Your task to perform on an android device: turn on notifications settings in the gmail app Image 0: 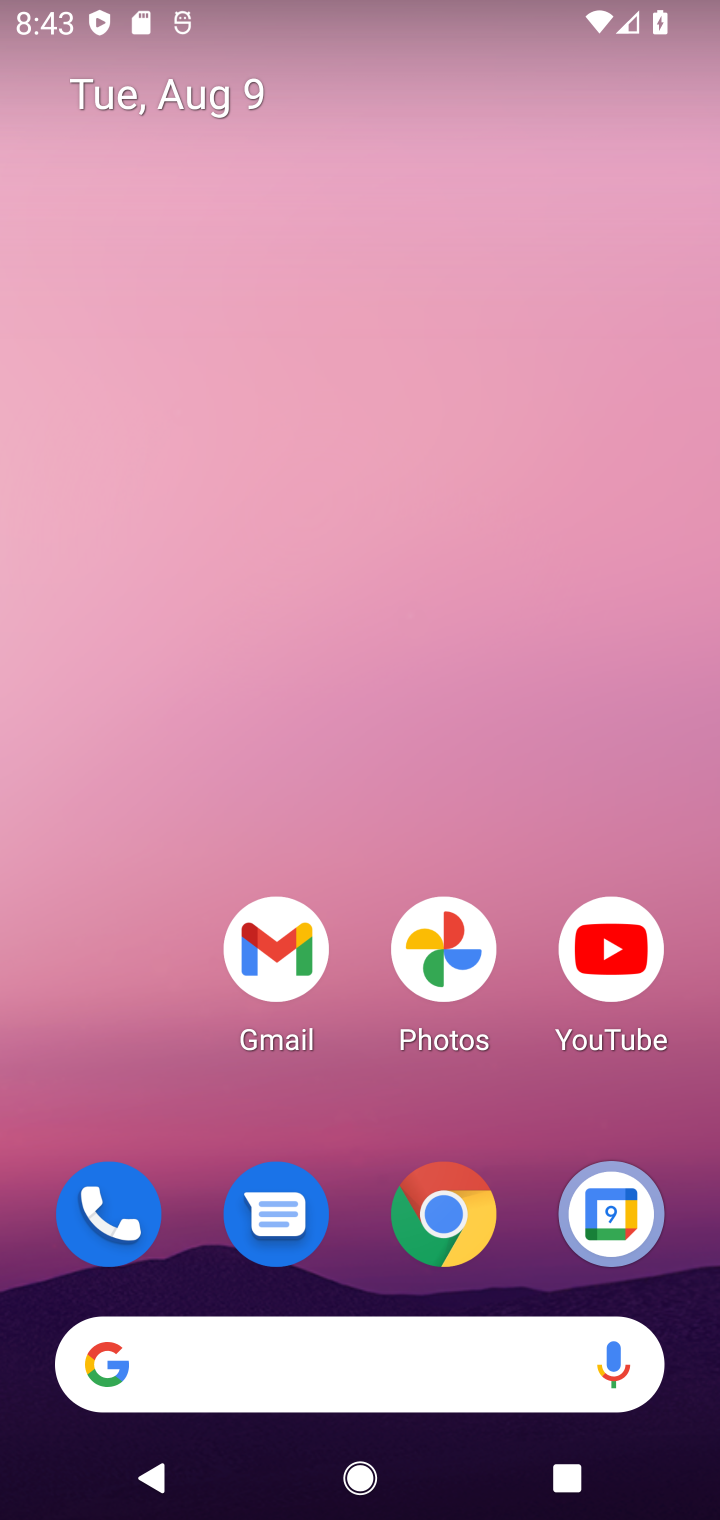
Step 0: click (289, 949)
Your task to perform on an android device: turn on notifications settings in the gmail app Image 1: 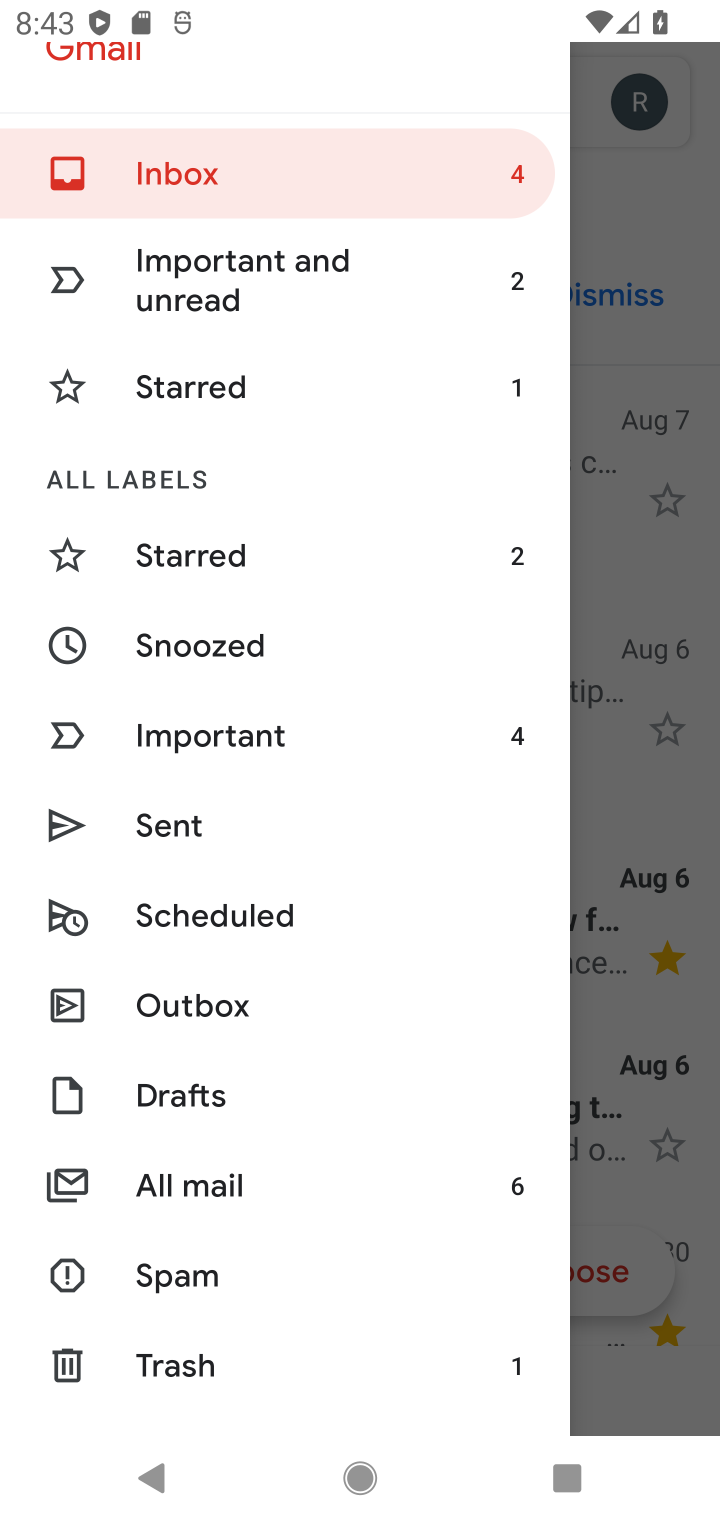
Step 1: drag from (341, 1220) to (223, 581)
Your task to perform on an android device: turn on notifications settings in the gmail app Image 2: 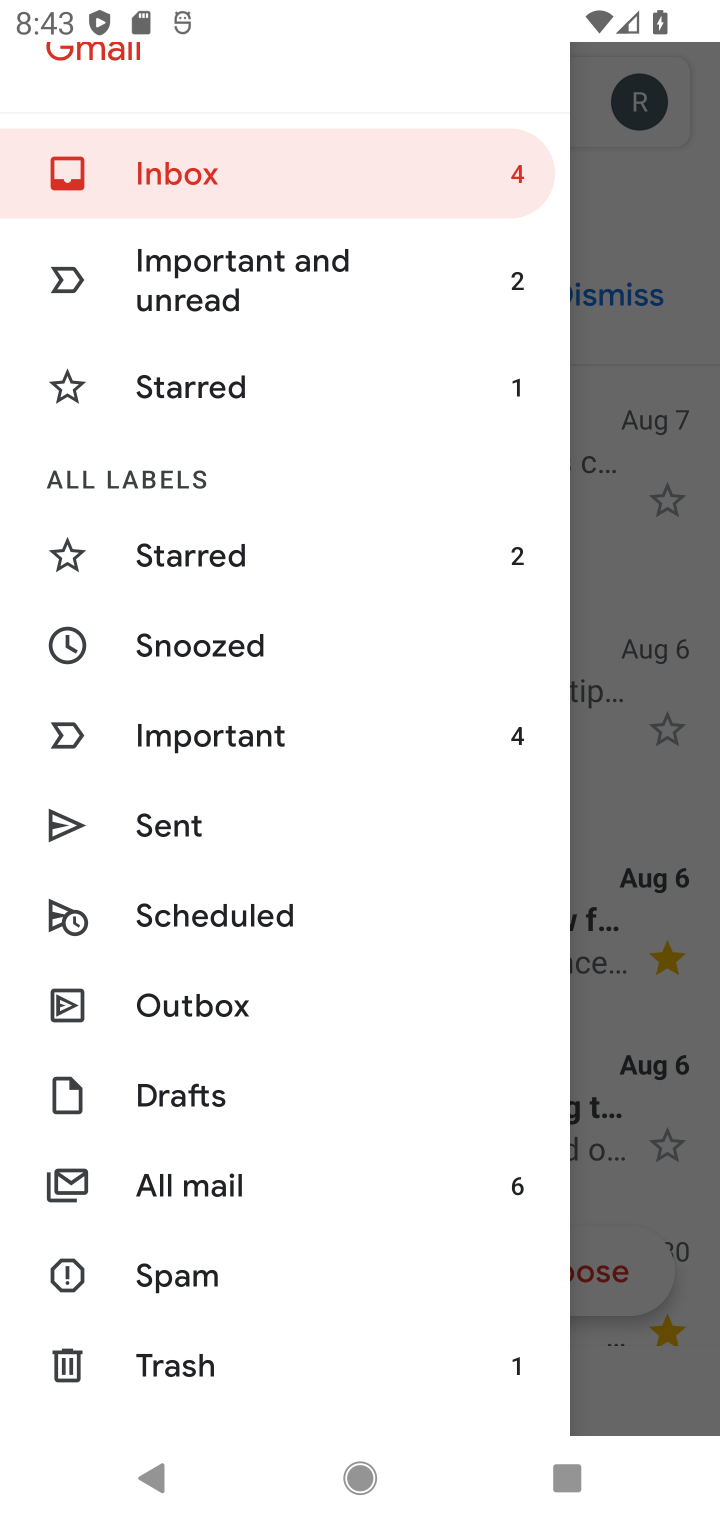
Step 2: drag from (351, 1353) to (467, 321)
Your task to perform on an android device: turn on notifications settings in the gmail app Image 3: 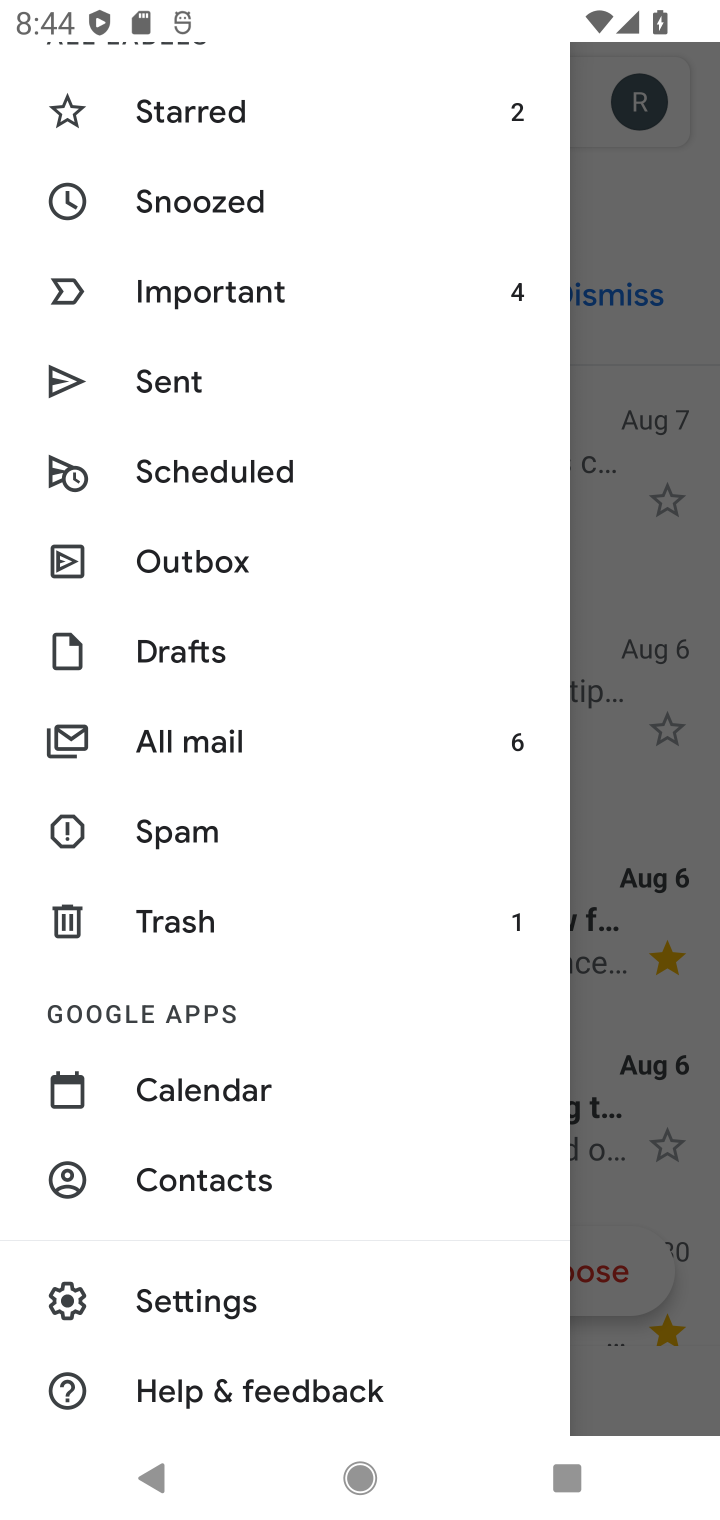
Step 3: click (153, 1290)
Your task to perform on an android device: turn on notifications settings in the gmail app Image 4: 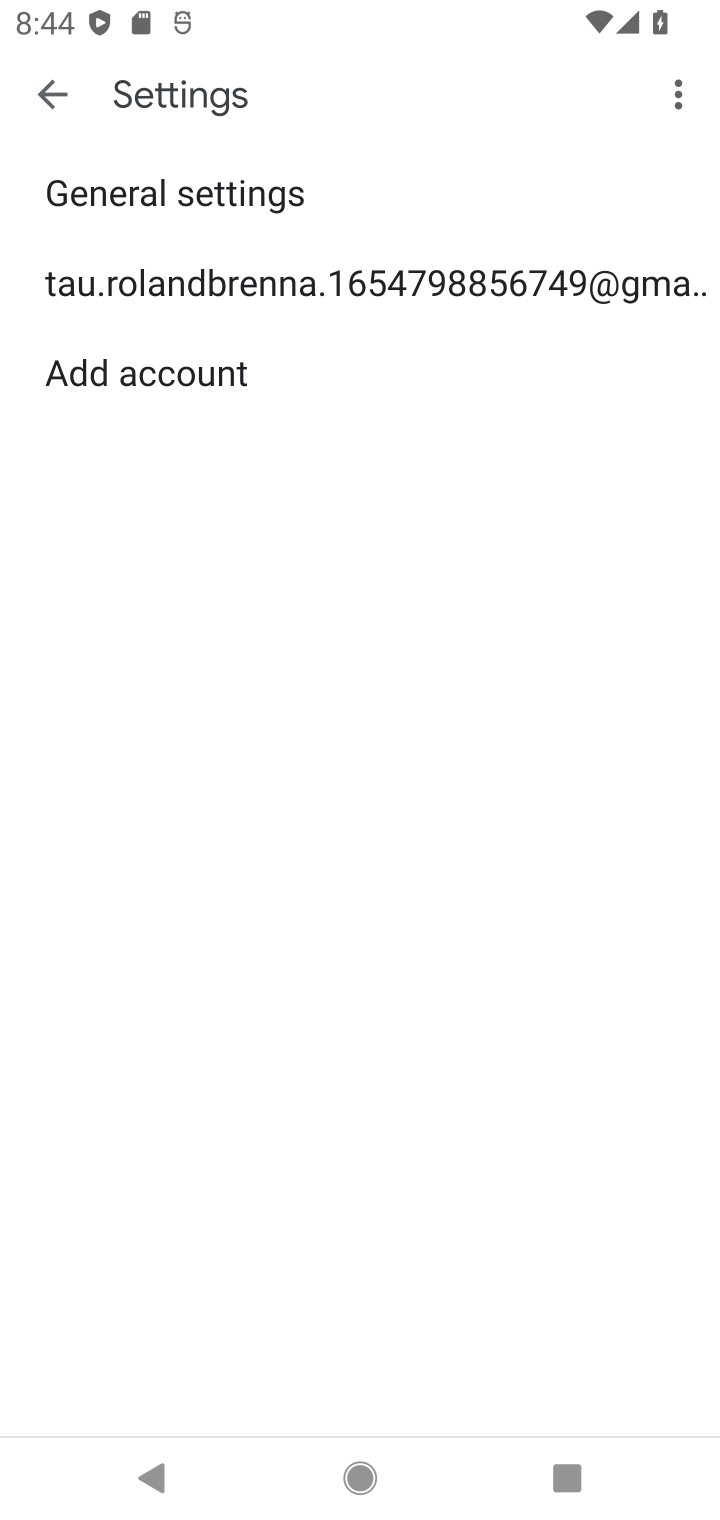
Step 4: click (141, 289)
Your task to perform on an android device: turn on notifications settings in the gmail app Image 5: 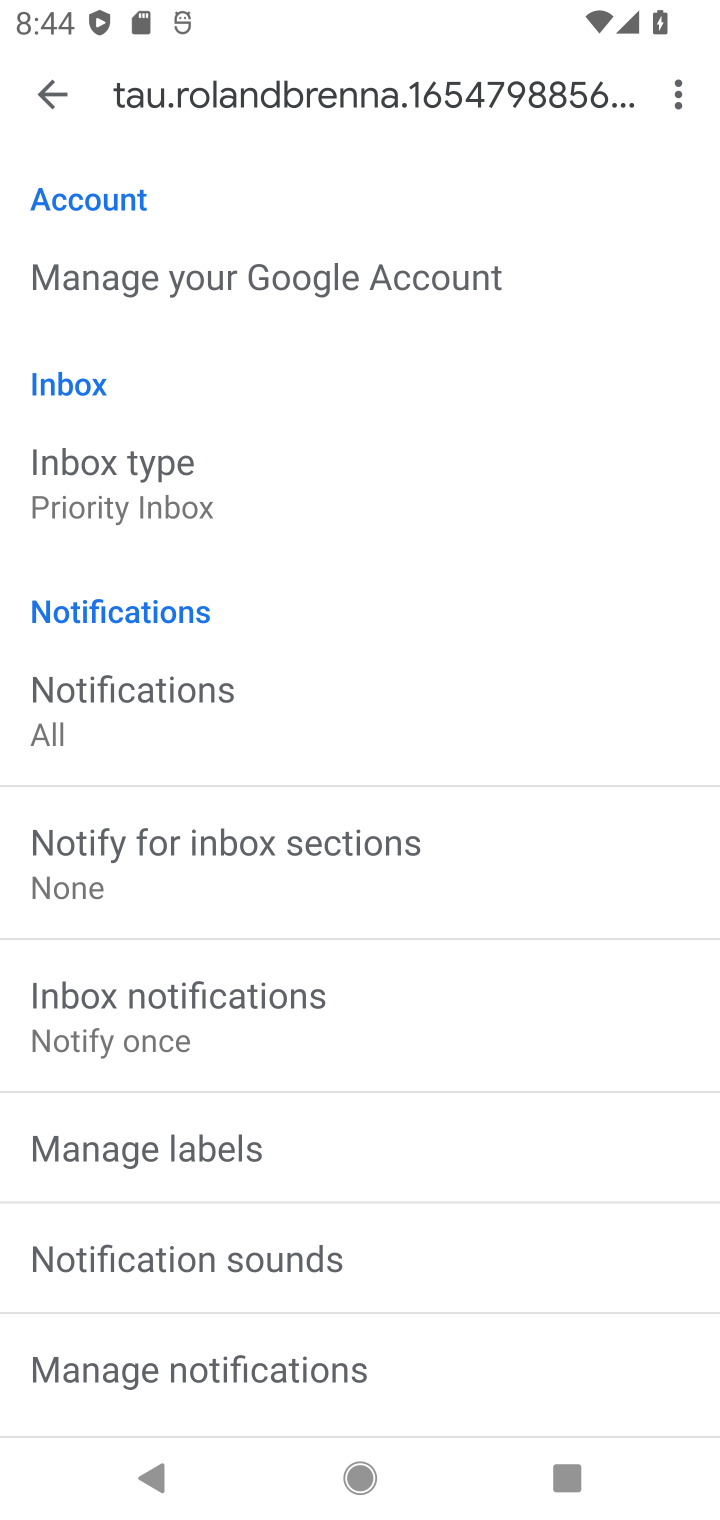
Step 5: click (216, 697)
Your task to perform on an android device: turn on notifications settings in the gmail app Image 6: 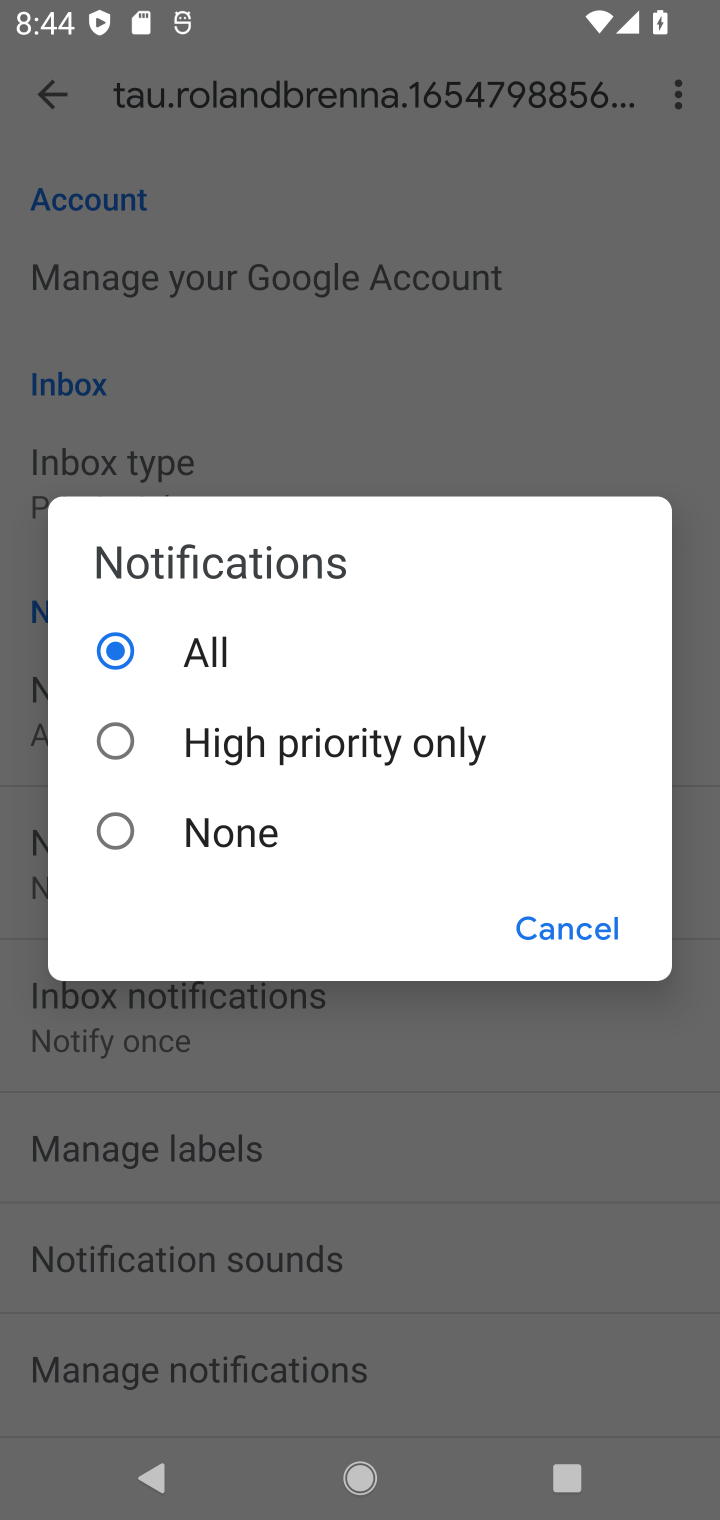
Step 6: task complete